Your task to perform on an android device: Open Google Maps and go to "Timeline" Image 0: 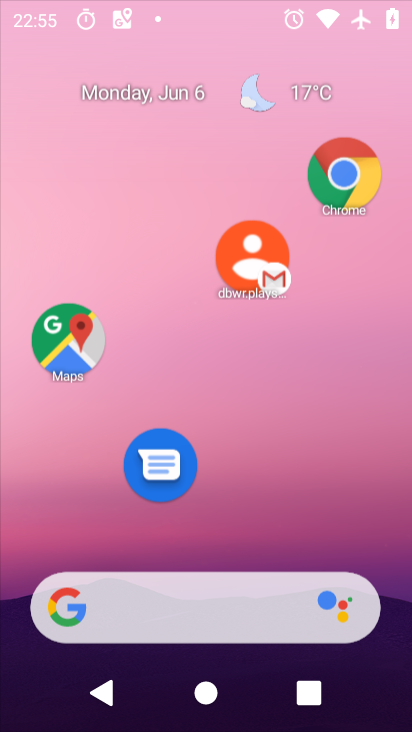
Step 0: click (275, 0)
Your task to perform on an android device: Open Google Maps and go to "Timeline" Image 1: 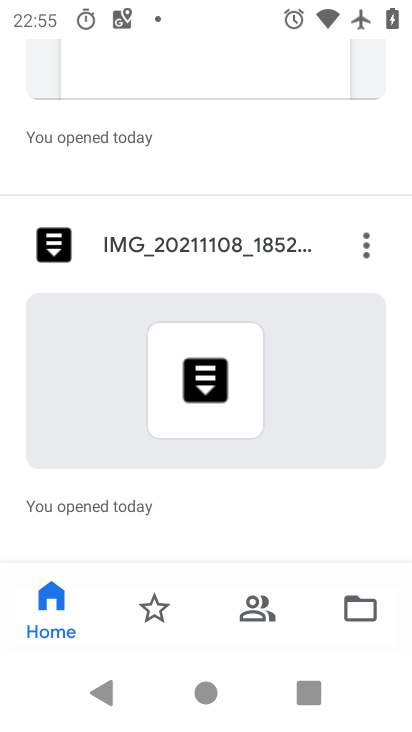
Step 1: press home button
Your task to perform on an android device: Open Google Maps and go to "Timeline" Image 2: 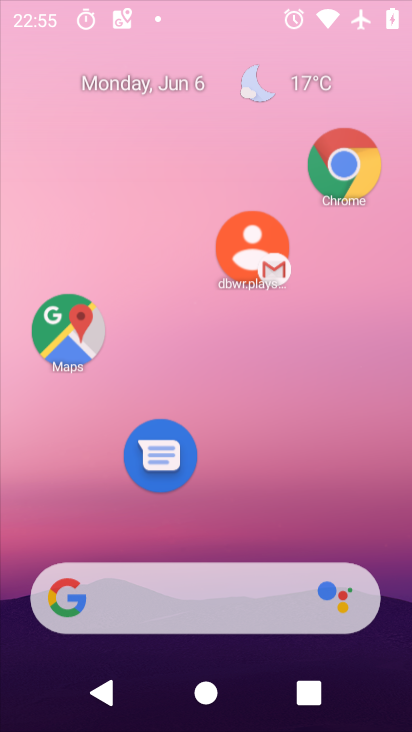
Step 2: drag from (191, 531) to (199, 0)
Your task to perform on an android device: Open Google Maps and go to "Timeline" Image 3: 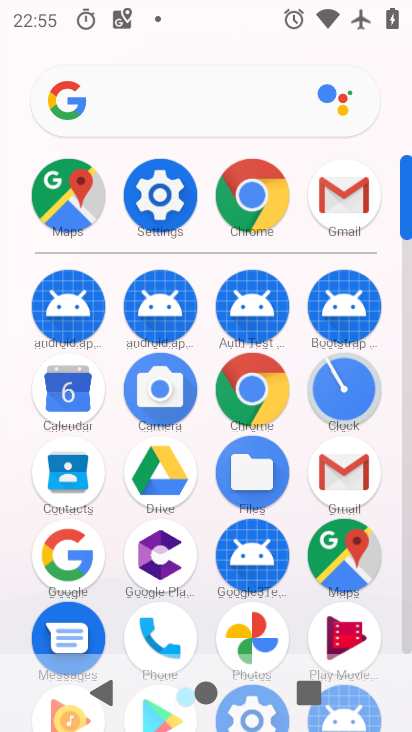
Step 3: click (349, 541)
Your task to perform on an android device: Open Google Maps and go to "Timeline" Image 4: 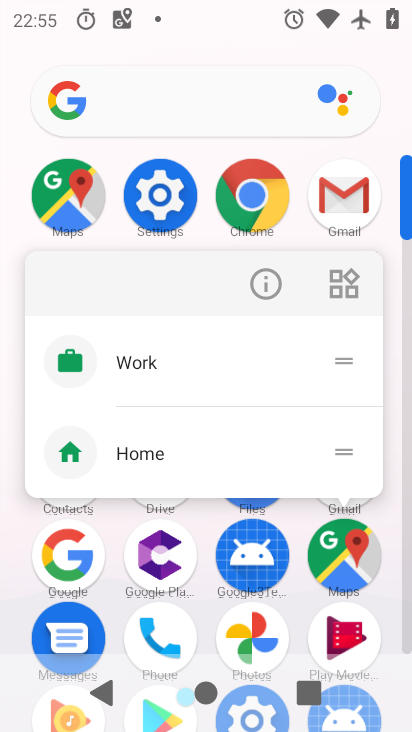
Step 4: click (274, 280)
Your task to perform on an android device: Open Google Maps and go to "Timeline" Image 5: 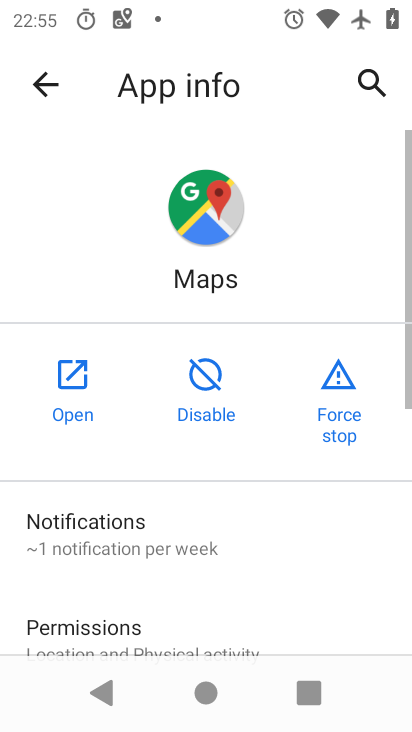
Step 5: click (60, 403)
Your task to perform on an android device: Open Google Maps and go to "Timeline" Image 6: 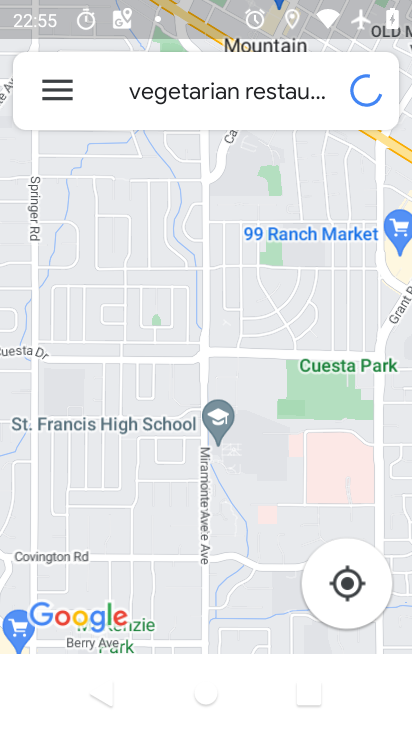
Step 6: drag from (217, 611) to (237, 175)
Your task to perform on an android device: Open Google Maps and go to "Timeline" Image 7: 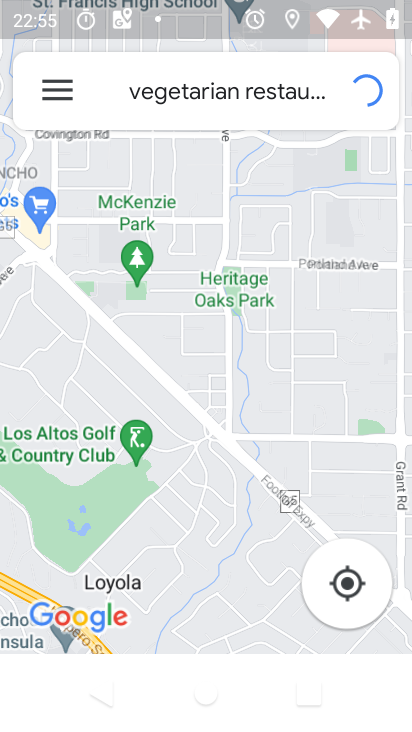
Step 7: click (66, 103)
Your task to perform on an android device: Open Google Maps and go to "Timeline" Image 8: 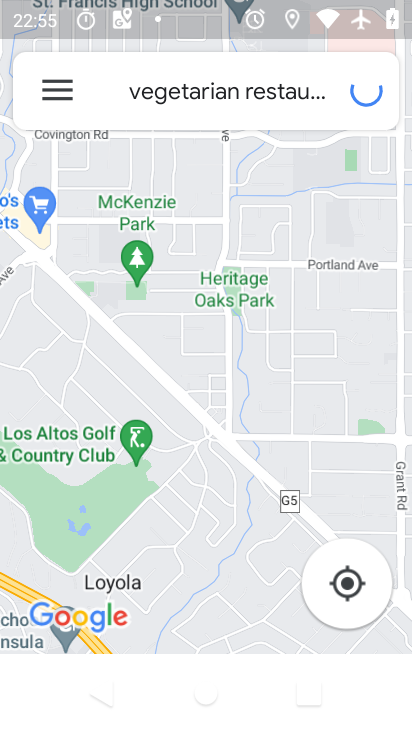
Step 8: click (60, 91)
Your task to perform on an android device: Open Google Maps and go to "Timeline" Image 9: 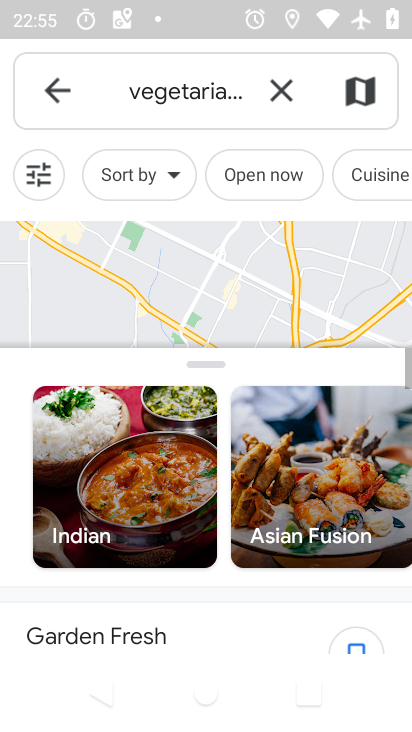
Step 9: click (60, 91)
Your task to perform on an android device: Open Google Maps and go to "Timeline" Image 10: 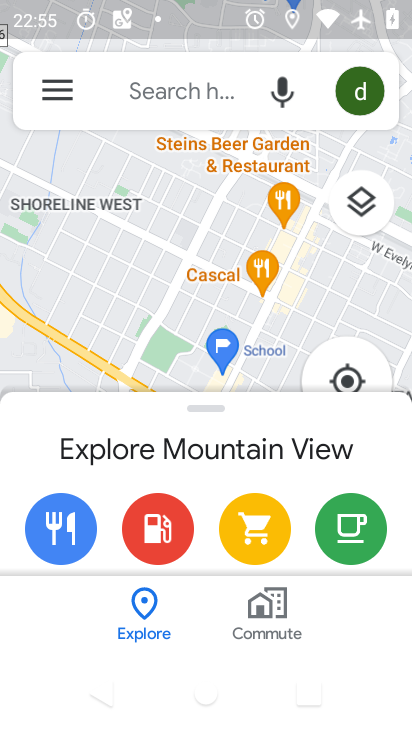
Step 10: click (60, 93)
Your task to perform on an android device: Open Google Maps and go to "Timeline" Image 11: 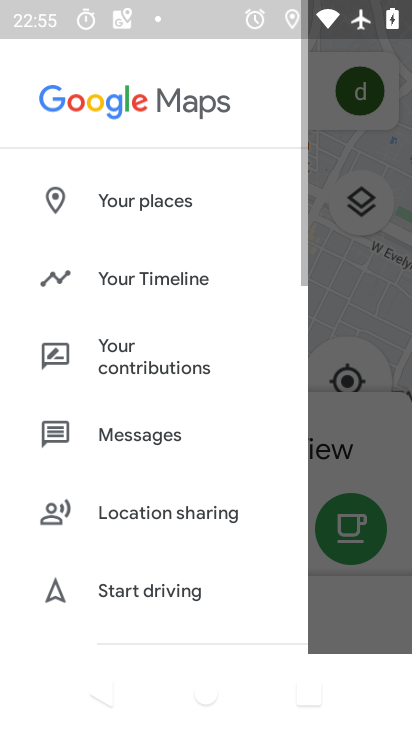
Step 11: click (136, 268)
Your task to perform on an android device: Open Google Maps and go to "Timeline" Image 12: 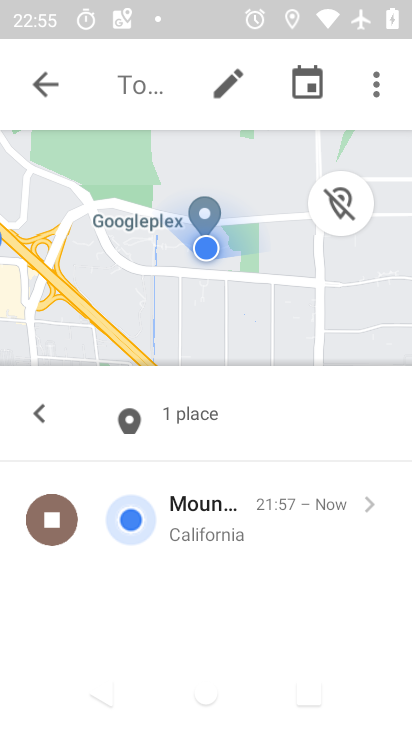
Step 12: drag from (234, 529) to (257, 171)
Your task to perform on an android device: Open Google Maps and go to "Timeline" Image 13: 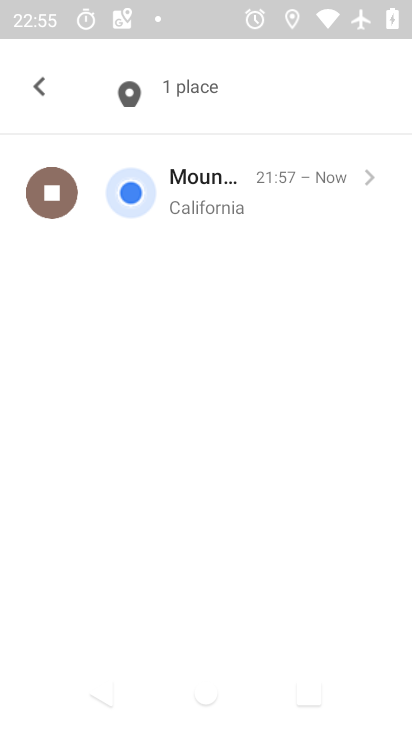
Step 13: drag from (237, 256) to (332, 579)
Your task to perform on an android device: Open Google Maps and go to "Timeline" Image 14: 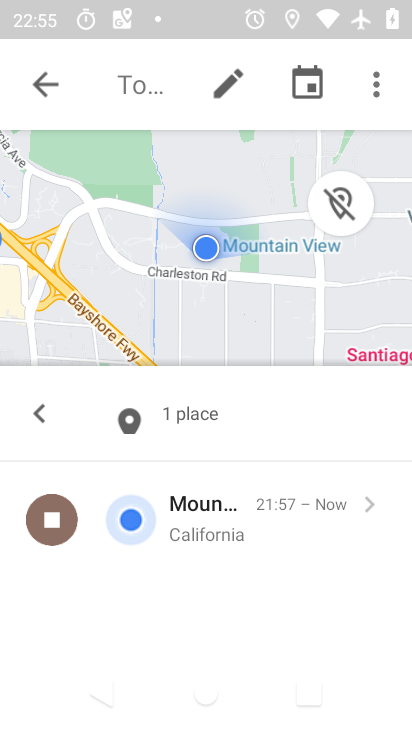
Step 14: click (49, 84)
Your task to perform on an android device: Open Google Maps and go to "Timeline" Image 15: 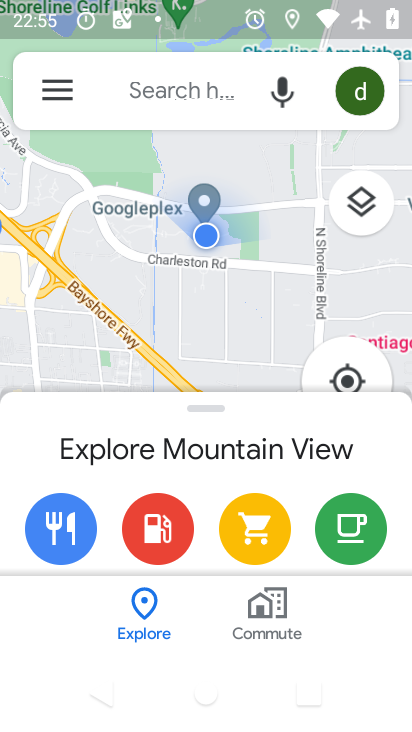
Step 15: click (58, 85)
Your task to perform on an android device: Open Google Maps and go to "Timeline" Image 16: 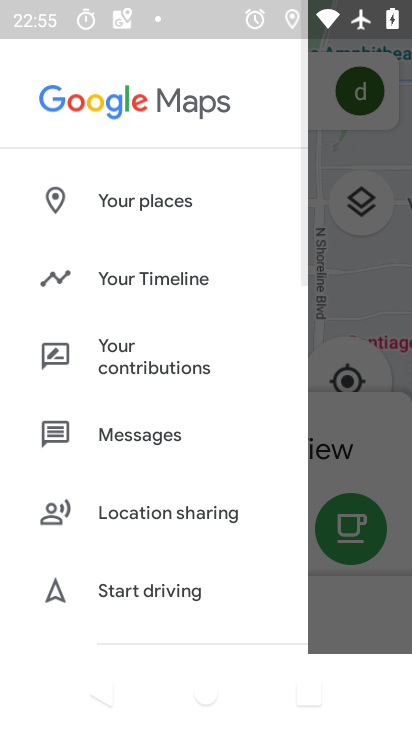
Step 16: click (173, 279)
Your task to perform on an android device: Open Google Maps and go to "Timeline" Image 17: 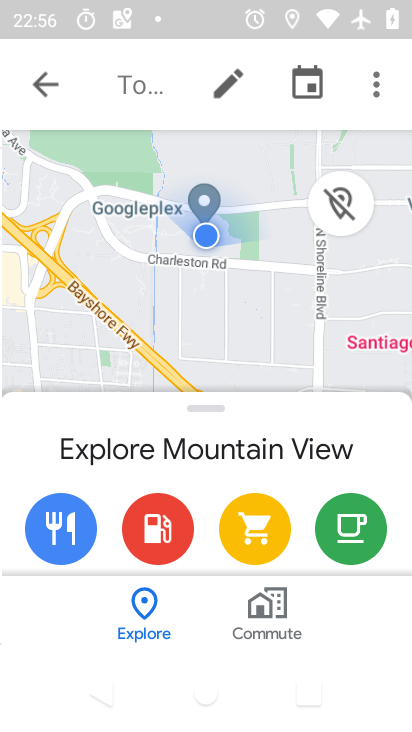
Step 17: task complete